Your task to perform on an android device: turn off location history Image 0: 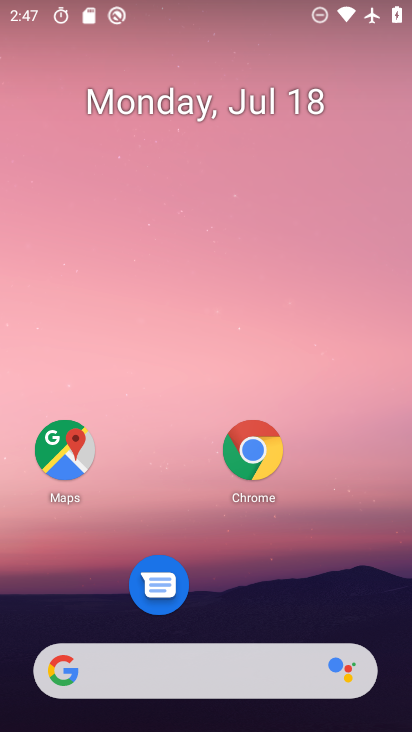
Step 0: press home button
Your task to perform on an android device: turn off location history Image 1: 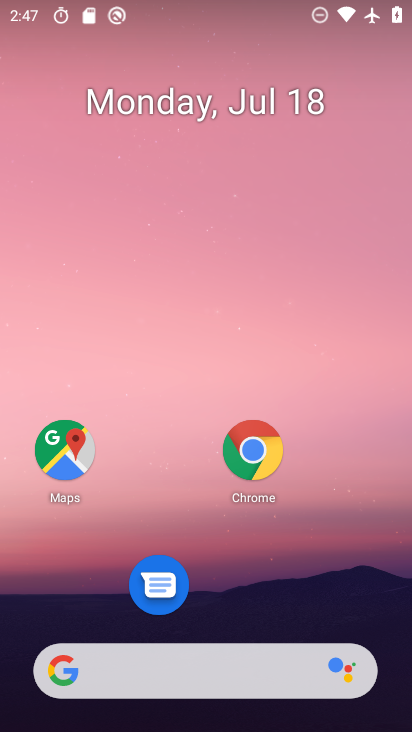
Step 1: click (63, 453)
Your task to perform on an android device: turn off location history Image 2: 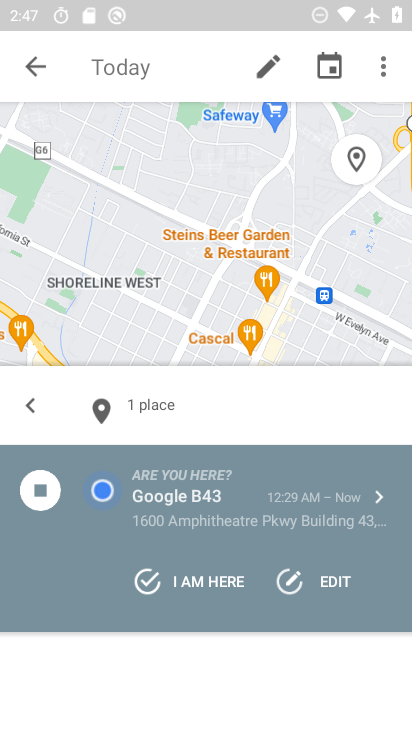
Step 2: click (385, 62)
Your task to perform on an android device: turn off location history Image 3: 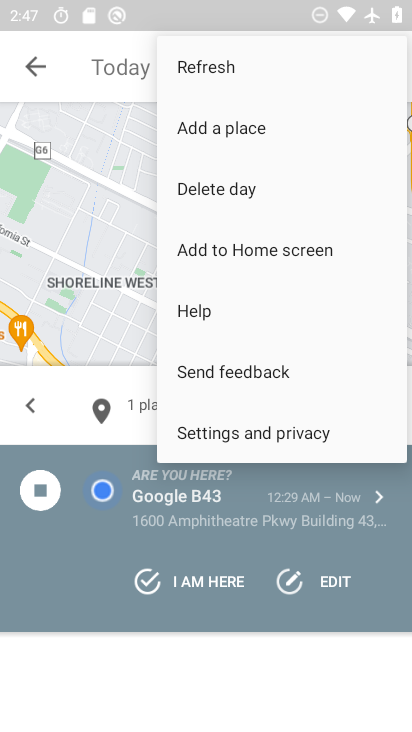
Step 3: click (379, 74)
Your task to perform on an android device: turn off location history Image 4: 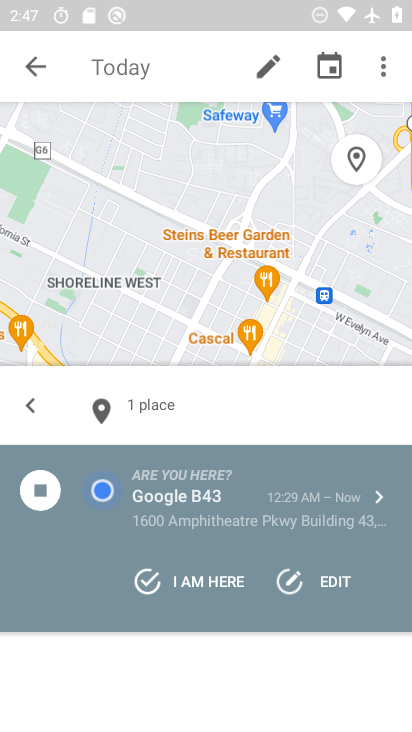
Step 4: click (378, 70)
Your task to perform on an android device: turn off location history Image 5: 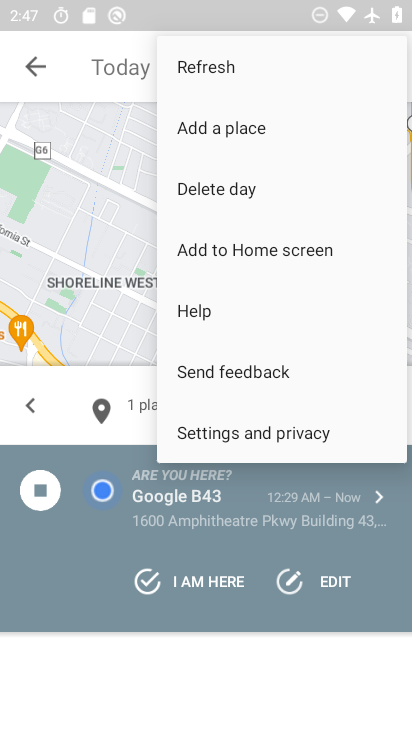
Step 5: click (216, 431)
Your task to perform on an android device: turn off location history Image 6: 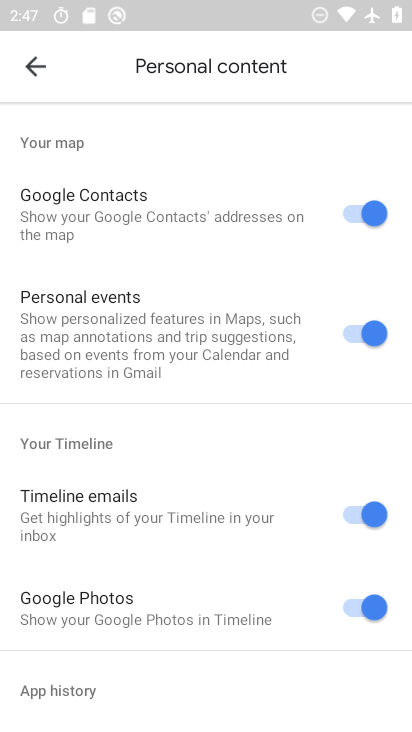
Step 6: drag from (176, 611) to (343, 33)
Your task to perform on an android device: turn off location history Image 7: 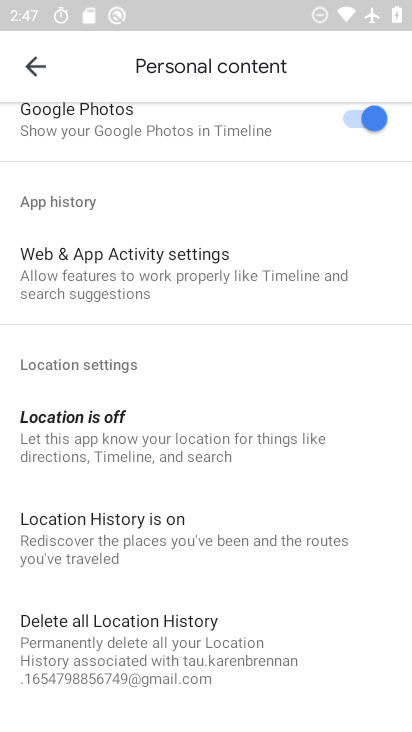
Step 7: click (144, 528)
Your task to perform on an android device: turn off location history Image 8: 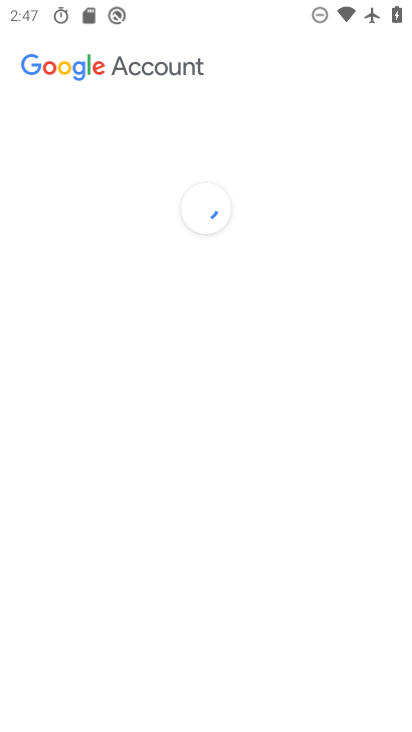
Step 8: click (127, 527)
Your task to perform on an android device: turn off location history Image 9: 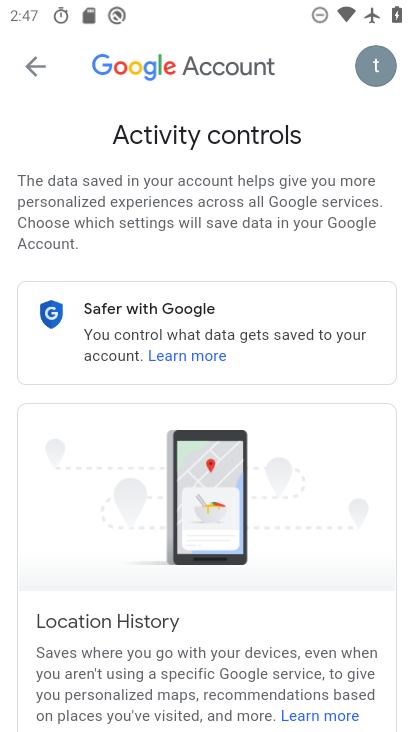
Step 9: drag from (256, 636) to (357, 197)
Your task to perform on an android device: turn off location history Image 10: 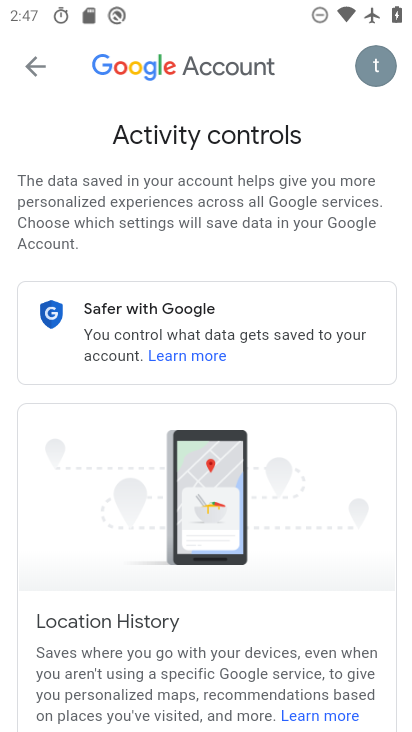
Step 10: drag from (255, 633) to (286, 83)
Your task to perform on an android device: turn off location history Image 11: 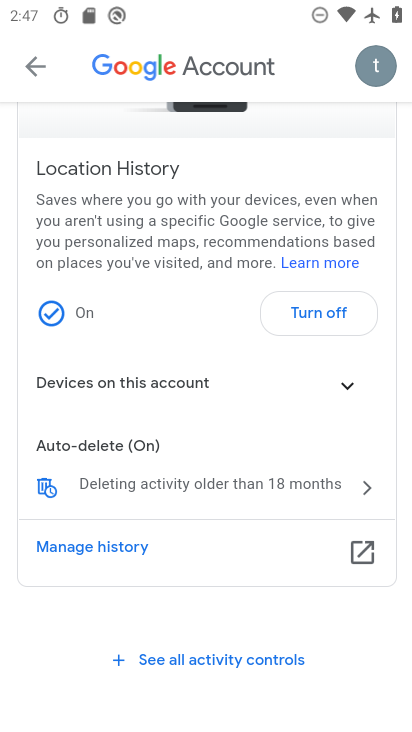
Step 11: click (307, 318)
Your task to perform on an android device: turn off location history Image 12: 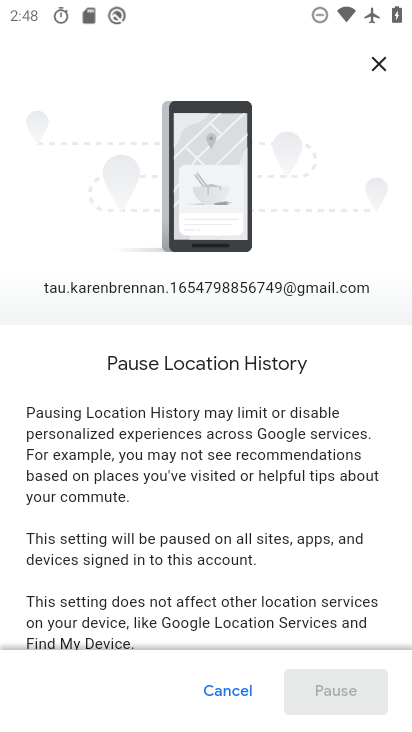
Step 12: drag from (213, 582) to (275, 53)
Your task to perform on an android device: turn off location history Image 13: 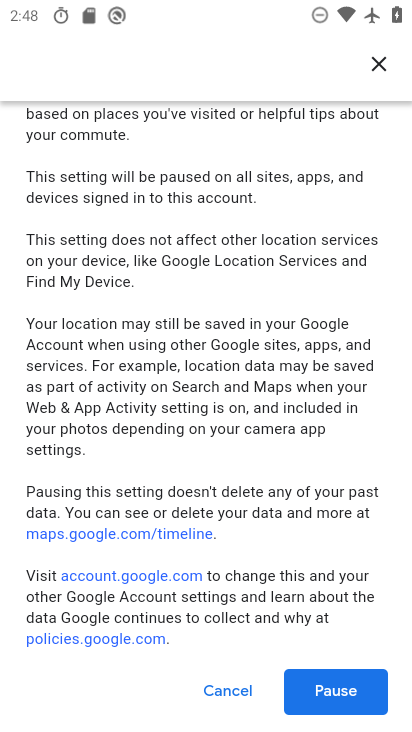
Step 13: click (353, 689)
Your task to perform on an android device: turn off location history Image 14: 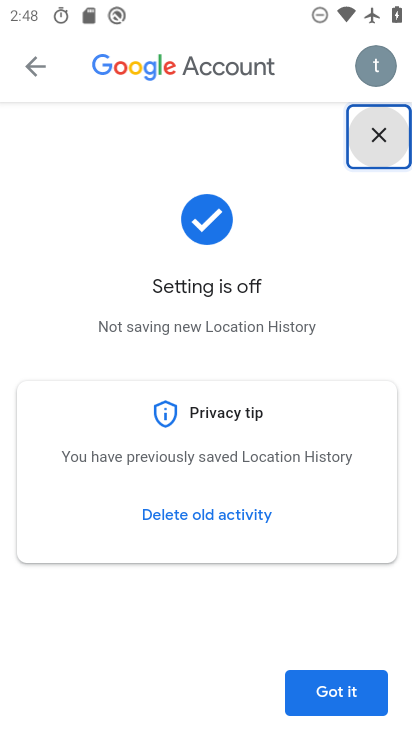
Step 14: click (347, 689)
Your task to perform on an android device: turn off location history Image 15: 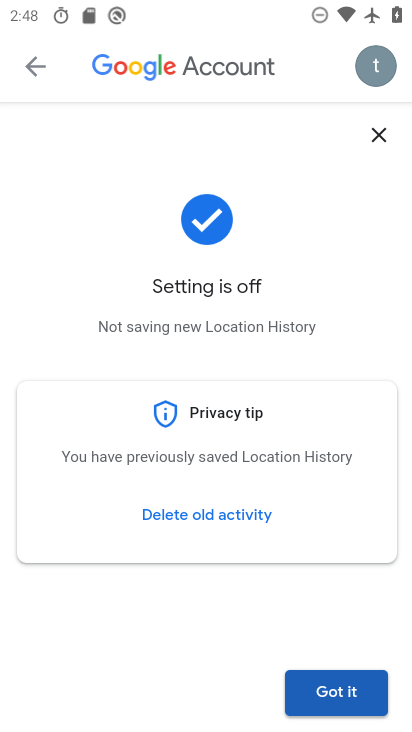
Step 15: click (337, 703)
Your task to perform on an android device: turn off location history Image 16: 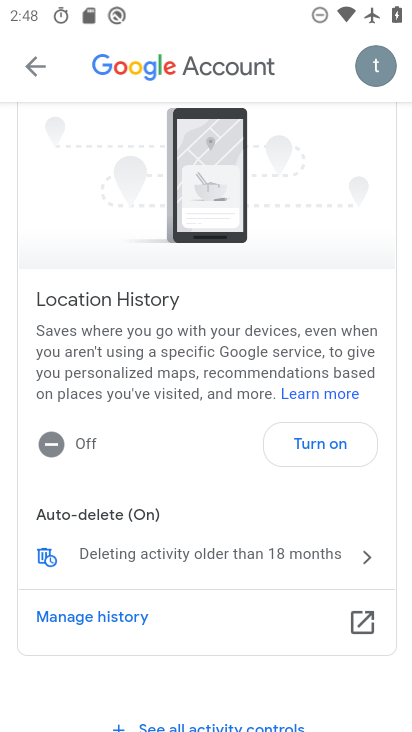
Step 16: task complete